Your task to perform on an android device: turn on data saver in the chrome app Image 0: 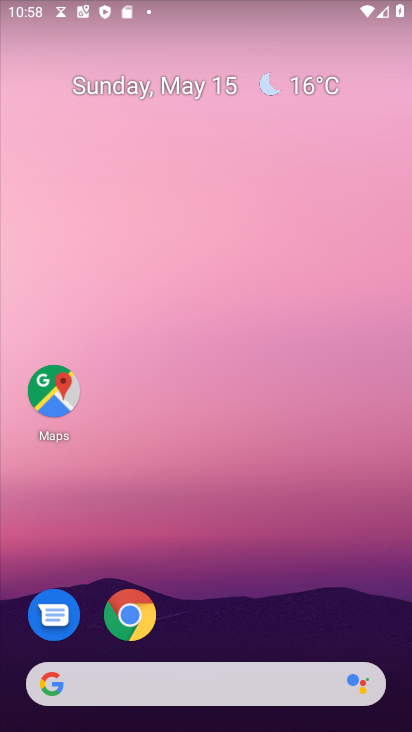
Step 0: drag from (309, 706) to (356, 43)
Your task to perform on an android device: turn on data saver in the chrome app Image 1: 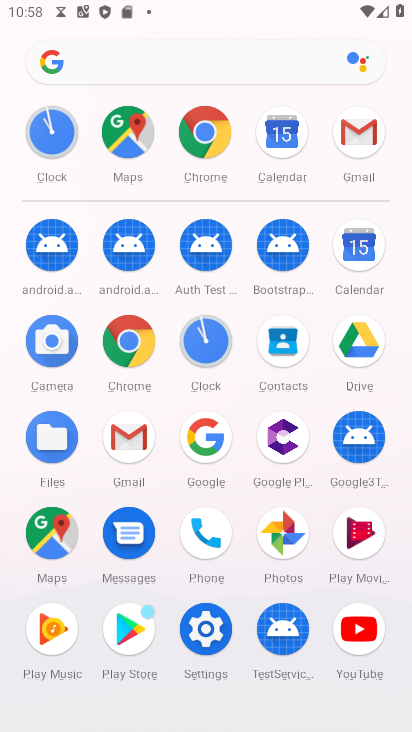
Step 1: click (131, 345)
Your task to perform on an android device: turn on data saver in the chrome app Image 2: 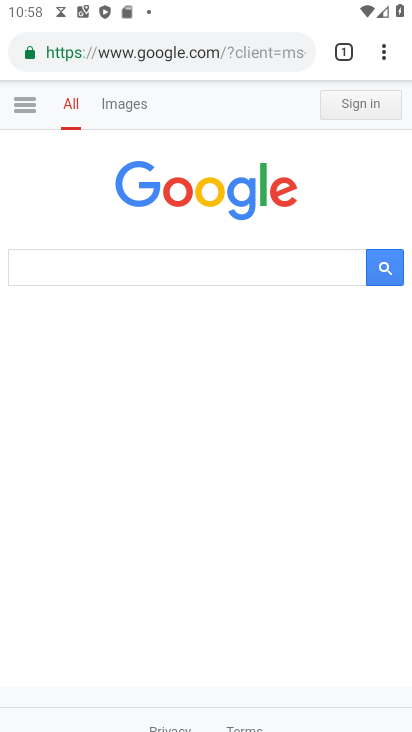
Step 2: drag from (377, 51) to (189, 583)
Your task to perform on an android device: turn on data saver in the chrome app Image 3: 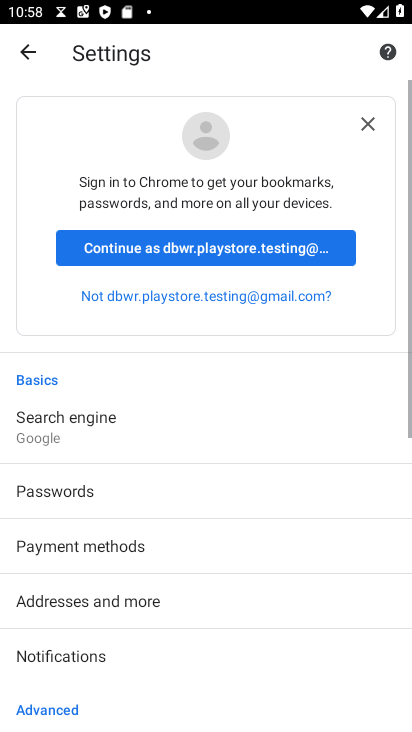
Step 3: drag from (117, 728) to (93, 306)
Your task to perform on an android device: turn on data saver in the chrome app Image 4: 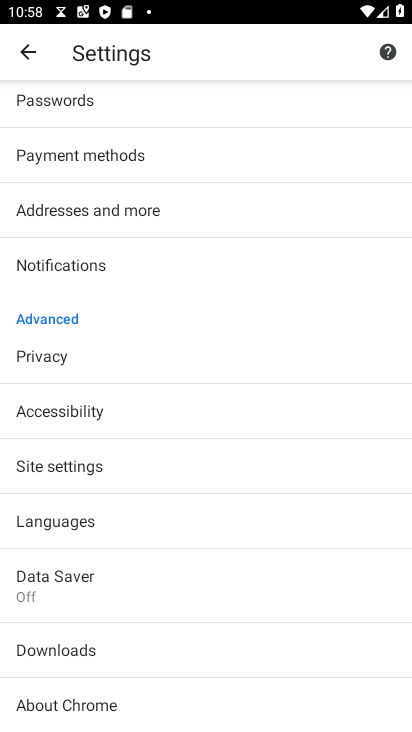
Step 4: click (37, 578)
Your task to perform on an android device: turn on data saver in the chrome app Image 5: 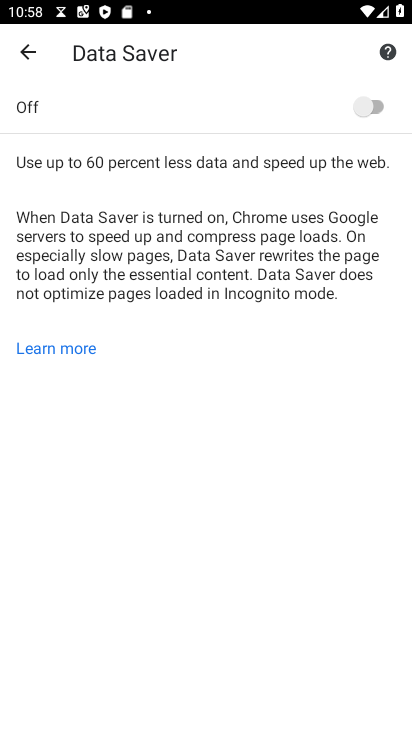
Step 5: click (377, 104)
Your task to perform on an android device: turn on data saver in the chrome app Image 6: 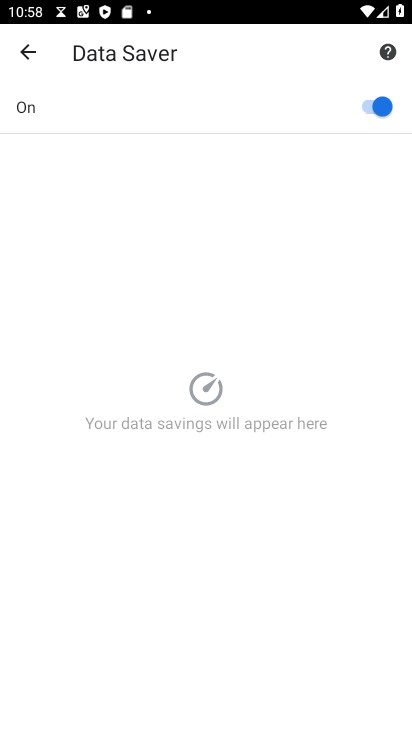
Step 6: task complete